Your task to perform on an android device: show emergency info Image 0: 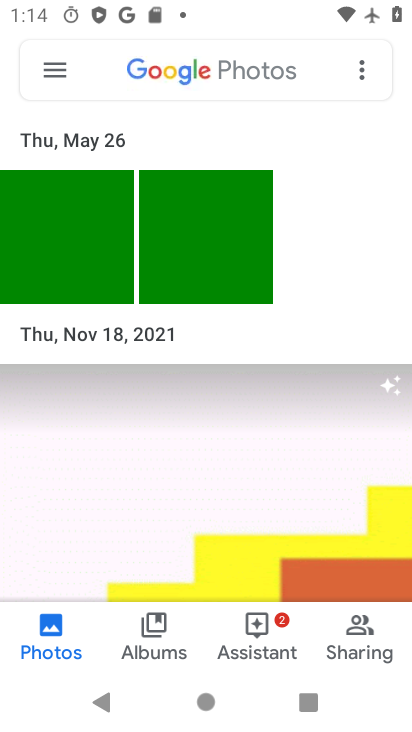
Step 0: press home button
Your task to perform on an android device: show emergency info Image 1: 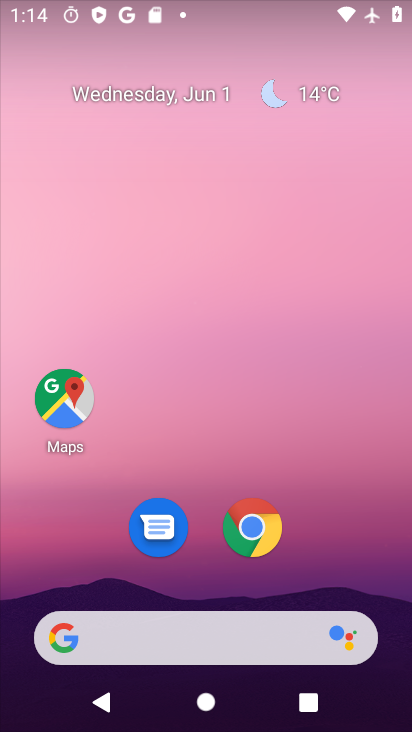
Step 1: drag from (226, 671) to (249, 49)
Your task to perform on an android device: show emergency info Image 2: 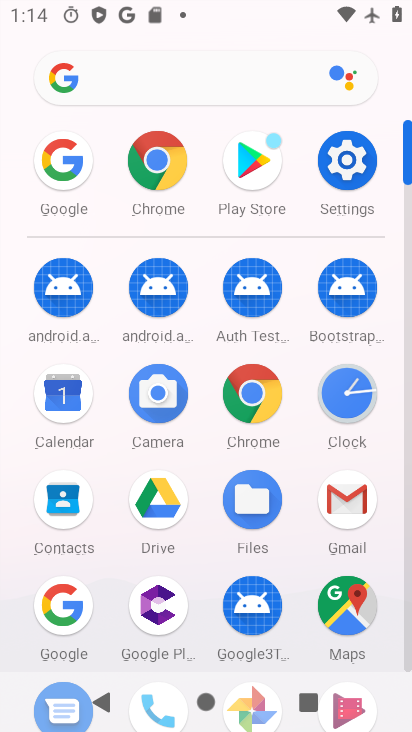
Step 2: click (358, 183)
Your task to perform on an android device: show emergency info Image 3: 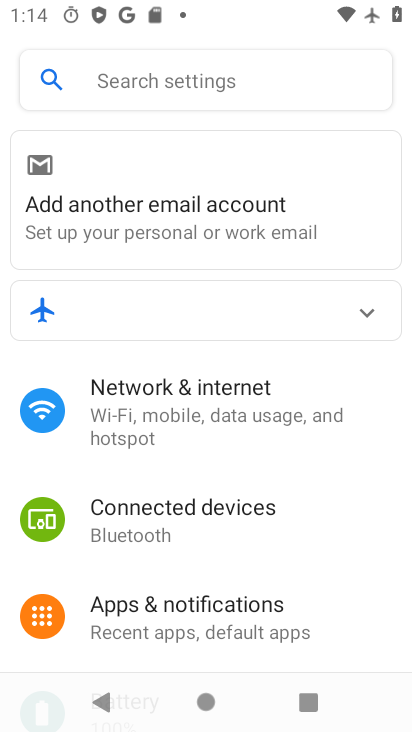
Step 3: drag from (155, 540) to (49, 287)
Your task to perform on an android device: show emergency info Image 4: 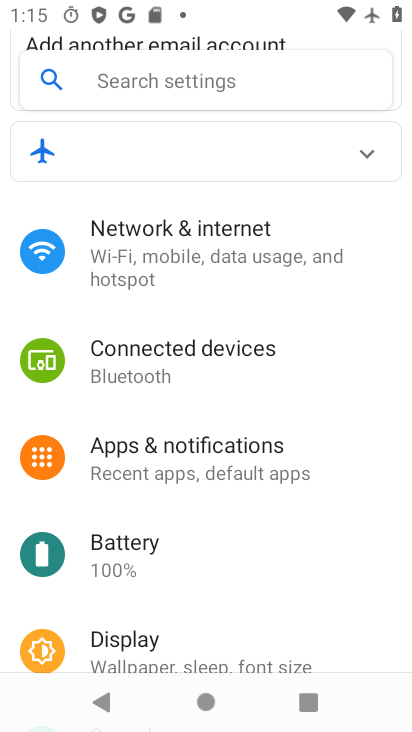
Step 4: drag from (140, 575) to (232, 51)
Your task to perform on an android device: show emergency info Image 5: 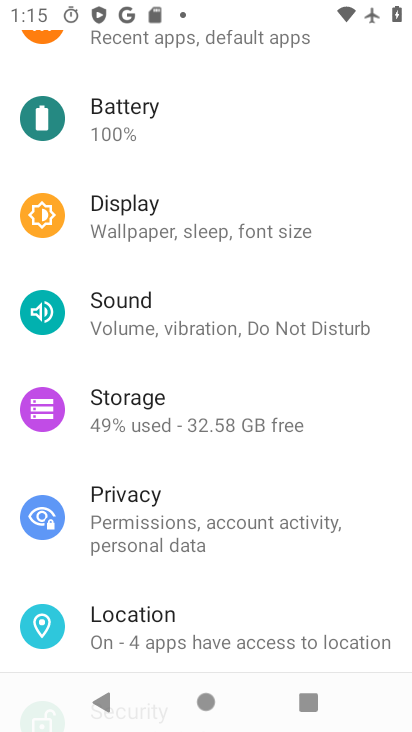
Step 5: drag from (168, 555) to (232, 90)
Your task to perform on an android device: show emergency info Image 6: 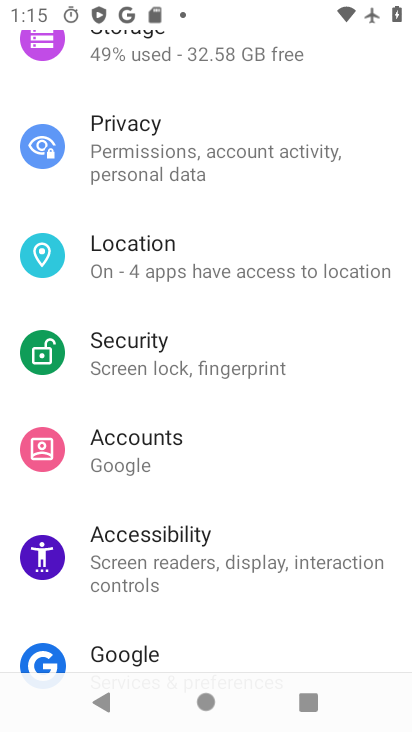
Step 6: drag from (193, 497) to (191, 58)
Your task to perform on an android device: show emergency info Image 7: 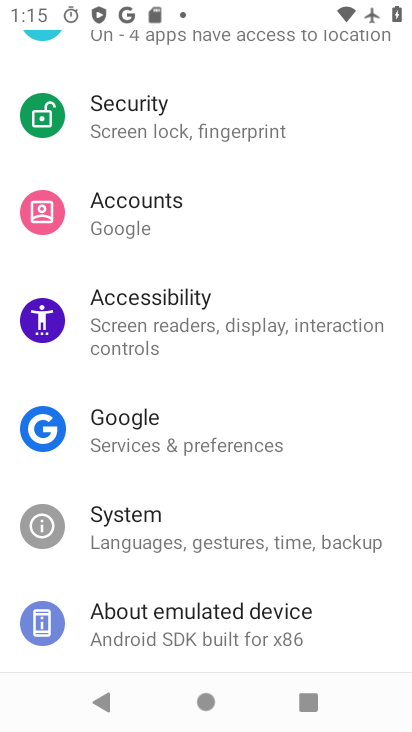
Step 7: click (119, 630)
Your task to perform on an android device: show emergency info Image 8: 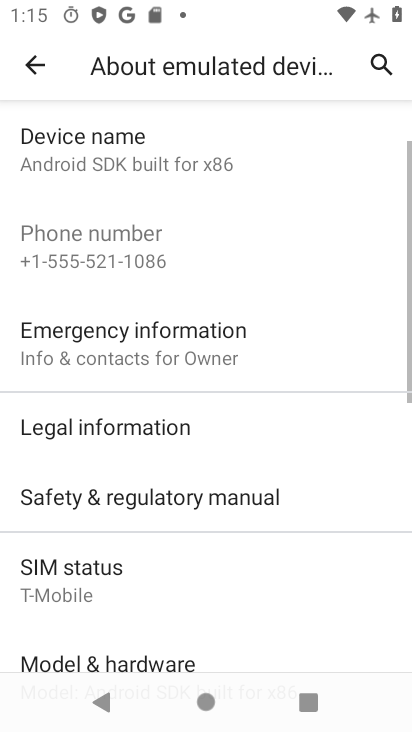
Step 8: click (193, 356)
Your task to perform on an android device: show emergency info Image 9: 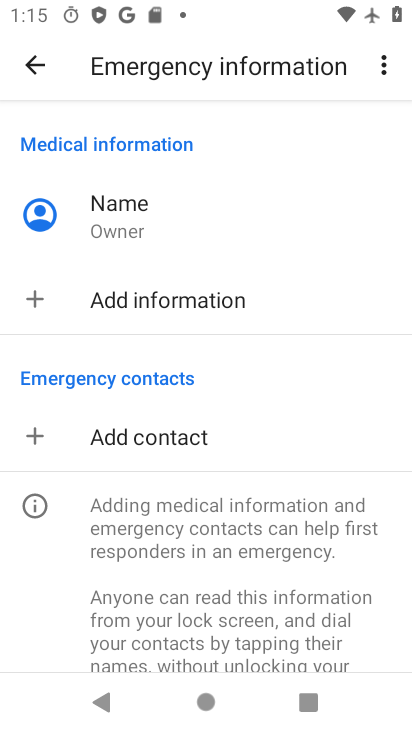
Step 9: task complete